Your task to perform on an android device: turn off javascript in the chrome app Image 0: 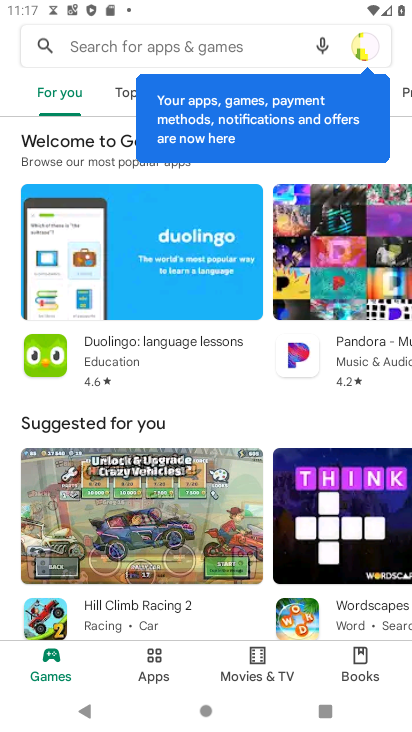
Step 0: press back button
Your task to perform on an android device: turn off javascript in the chrome app Image 1: 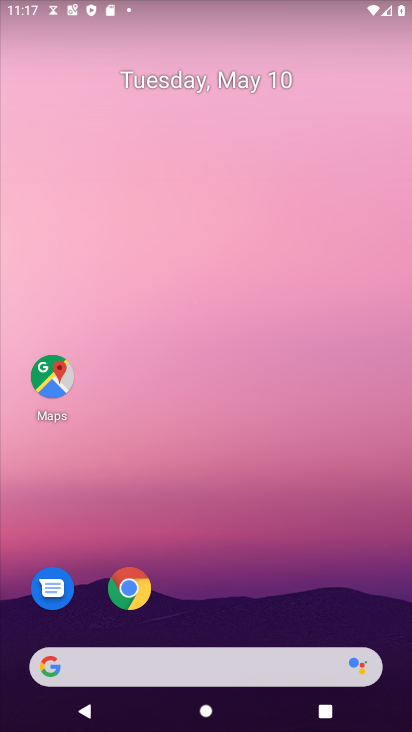
Step 1: drag from (316, 563) to (168, 13)
Your task to perform on an android device: turn off javascript in the chrome app Image 2: 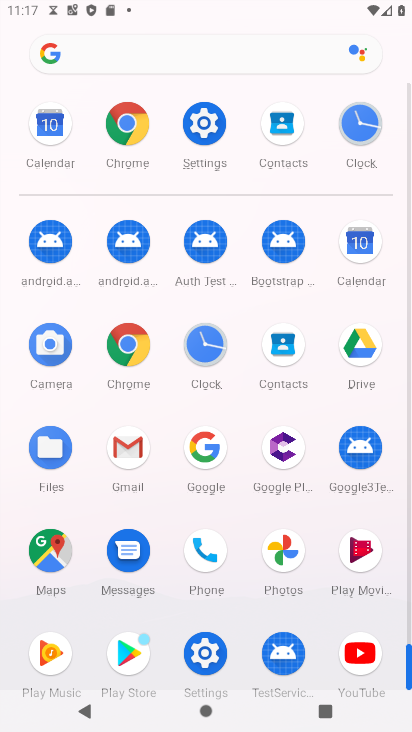
Step 2: click (128, 199)
Your task to perform on an android device: turn off javascript in the chrome app Image 3: 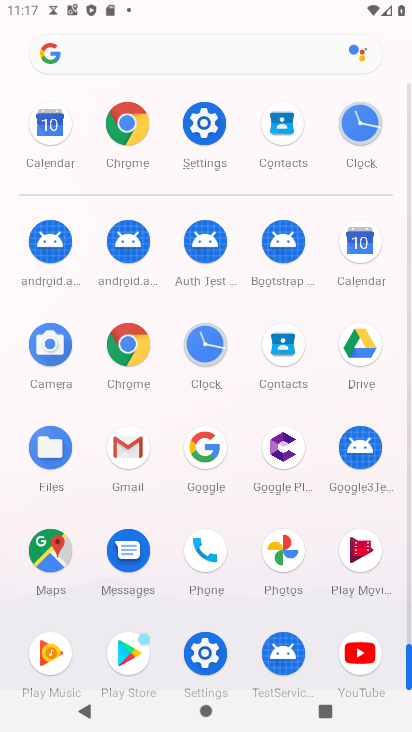
Step 3: click (127, 134)
Your task to perform on an android device: turn off javascript in the chrome app Image 4: 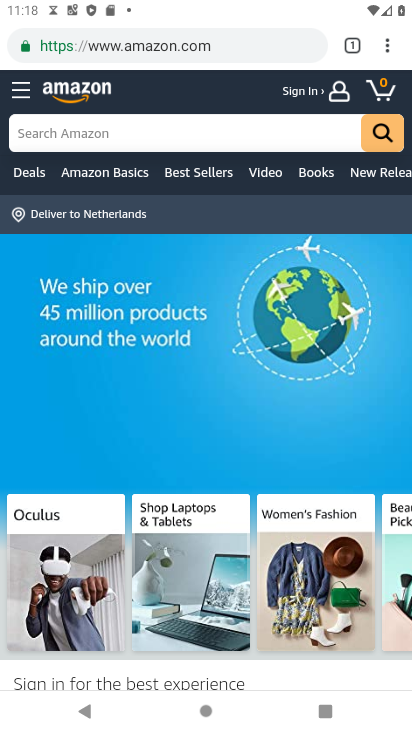
Step 4: click (388, 36)
Your task to perform on an android device: turn off javascript in the chrome app Image 5: 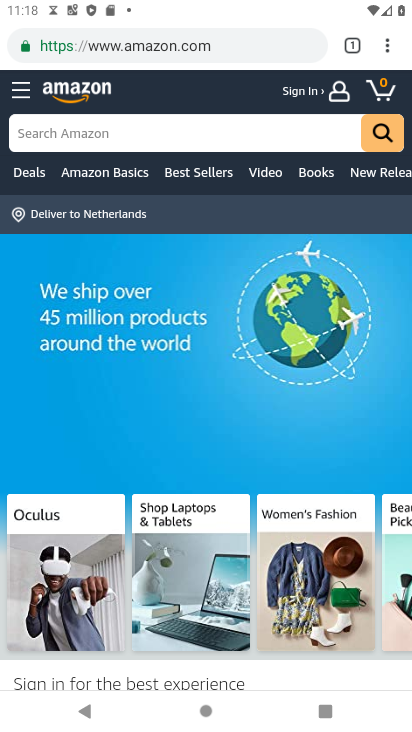
Step 5: drag from (384, 43) to (220, 551)
Your task to perform on an android device: turn off javascript in the chrome app Image 6: 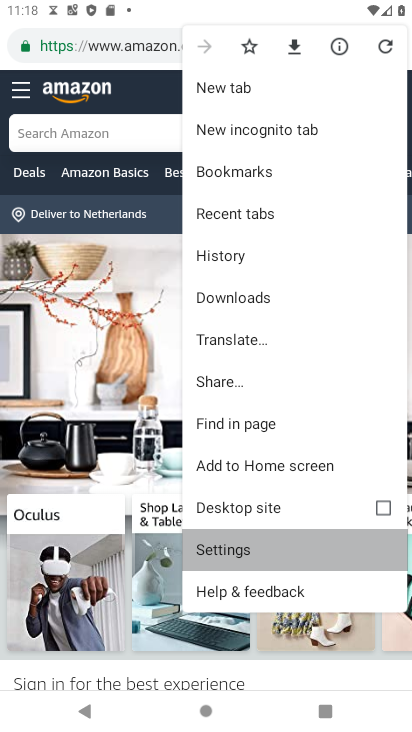
Step 6: click (220, 551)
Your task to perform on an android device: turn off javascript in the chrome app Image 7: 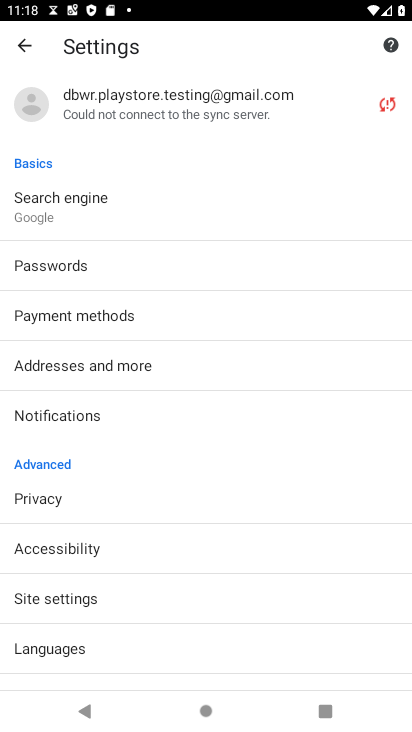
Step 7: click (58, 598)
Your task to perform on an android device: turn off javascript in the chrome app Image 8: 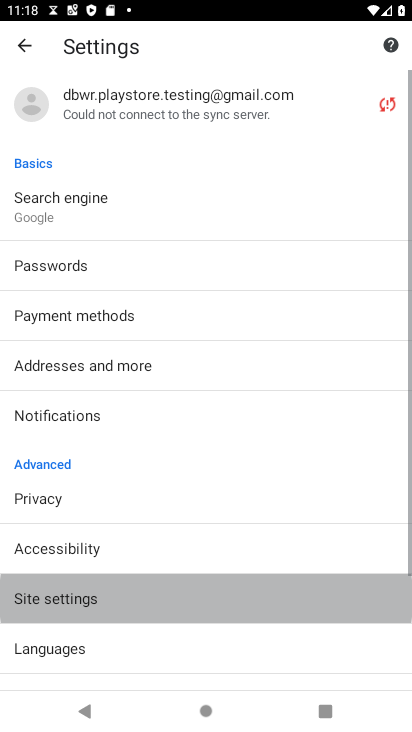
Step 8: click (58, 598)
Your task to perform on an android device: turn off javascript in the chrome app Image 9: 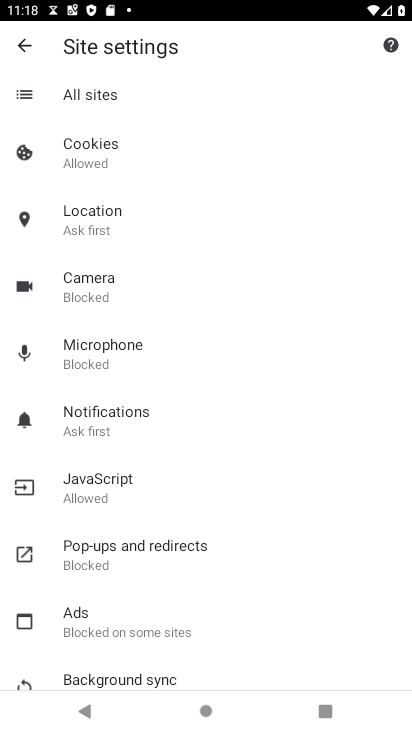
Step 9: click (96, 488)
Your task to perform on an android device: turn off javascript in the chrome app Image 10: 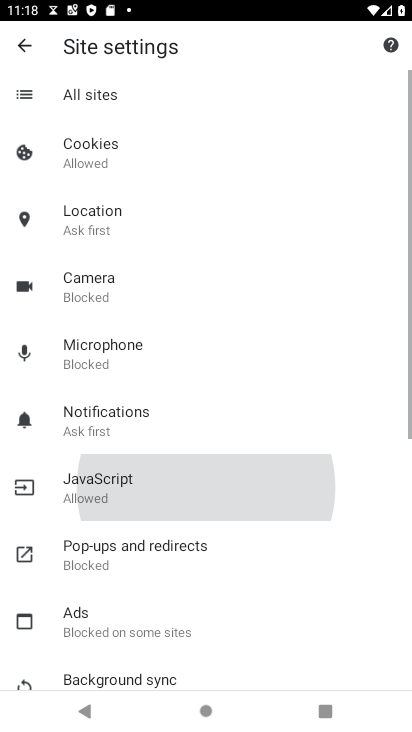
Step 10: click (95, 487)
Your task to perform on an android device: turn off javascript in the chrome app Image 11: 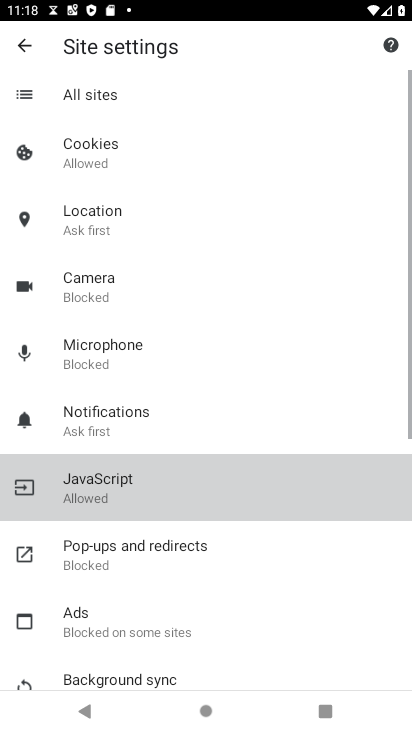
Step 11: click (95, 487)
Your task to perform on an android device: turn off javascript in the chrome app Image 12: 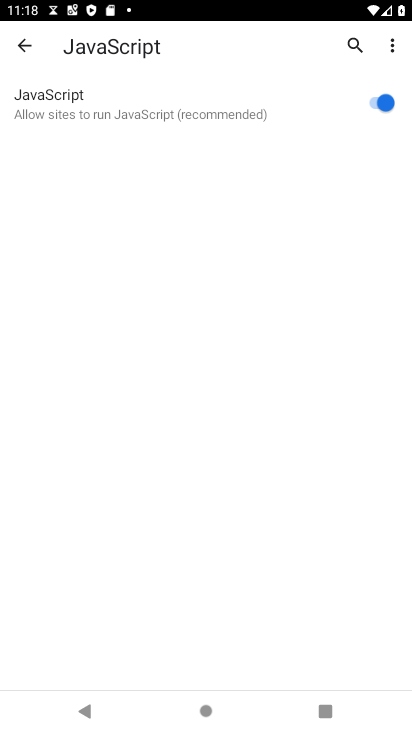
Step 12: click (389, 101)
Your task to perform on an android device: turn off javascript in the chrome app Image 13: 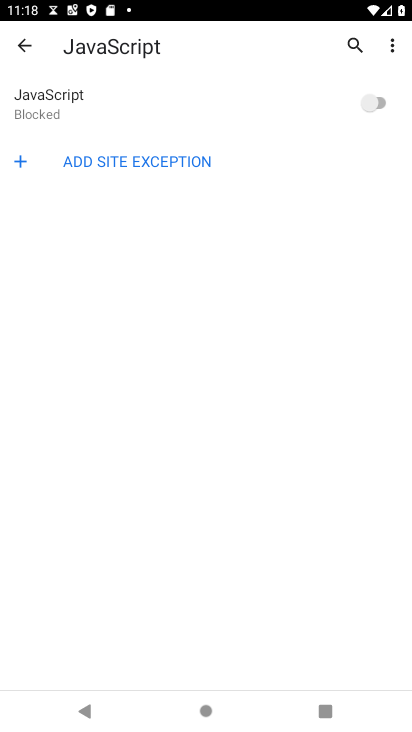
Step 13: task complete